Your task to perform on an android device: Open ESPN.com Image 0: 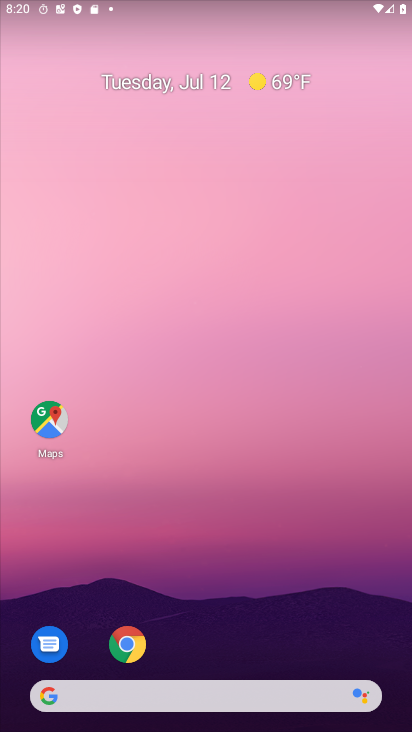
Step 0: click (123, 645)
Your task to perform on an android device: Open ESPN.com Image 1: 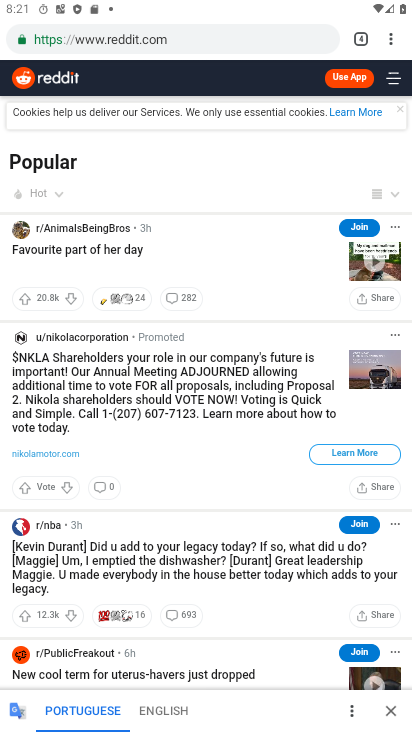
Step 1: click (357, 37)
Your task to perform on an android device: Open ESPN.com Image 2: 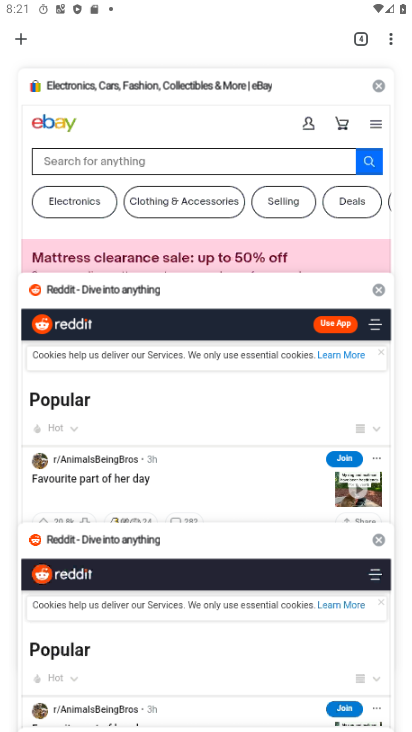
Step 2: click (21, 43)
Your task to perform on an android device: Open ESPN.com Image 3: 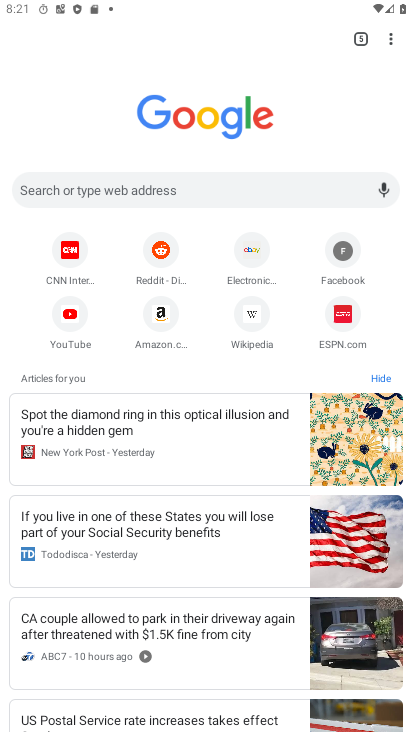
Step 3: click (336, 321)
Your task to perform on an android device: Open ESPN.com Image 4: 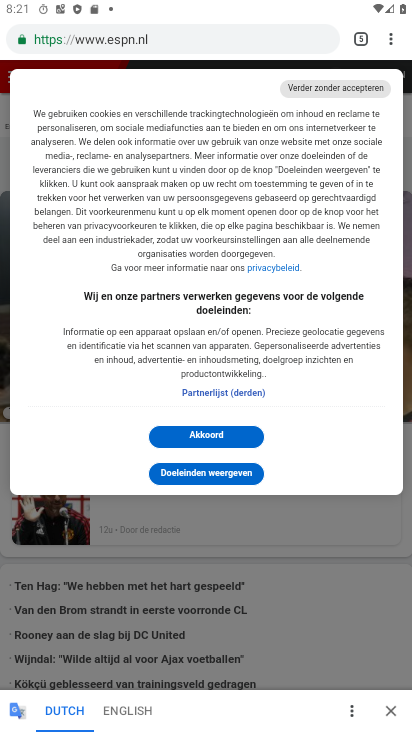
Step 4: click (227, 439)
Your task to perform on an android device: Open ESPN.com Image 5: 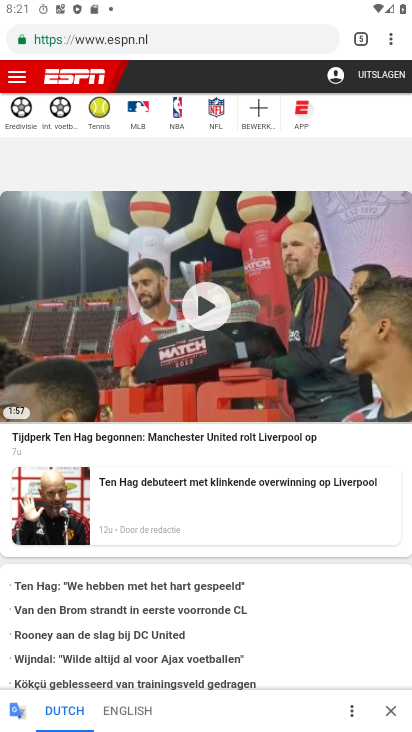
Step 5: task complete